Your task to perform on an android device: Search for Mexican restaurants on Maps Image 0: 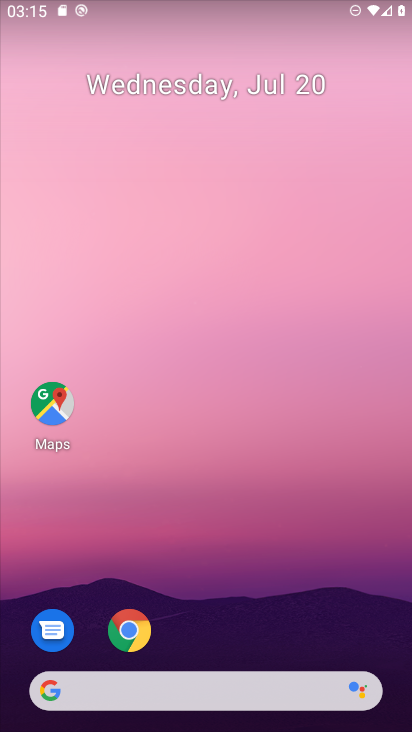
Step 0: drag from (348, 570) to (362, 92)
Your task to perform on an android device: Search for Mexican restaurants on Maps Image 1: 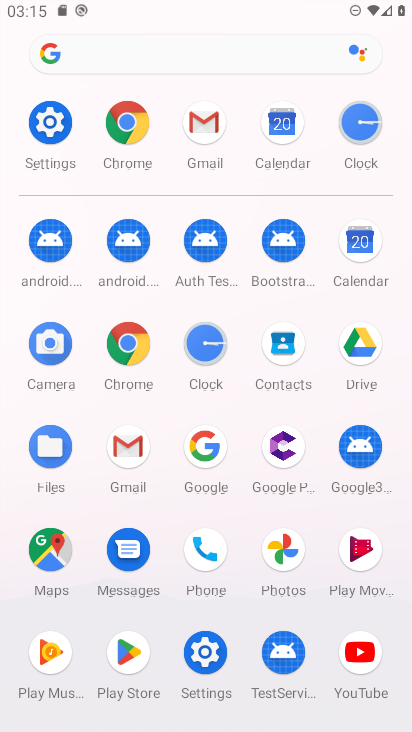
Step 1: click (58, 545)
Your task to perform on an android device: Search for Mexican restaurants on Maps Image 2: 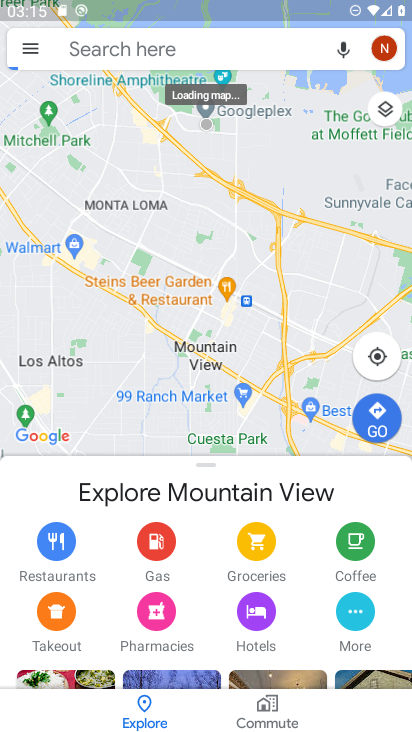
Step 2: click (171, 54)
Your task to perform on an android device: Search for Mexican restaurants on Maps Image 3: 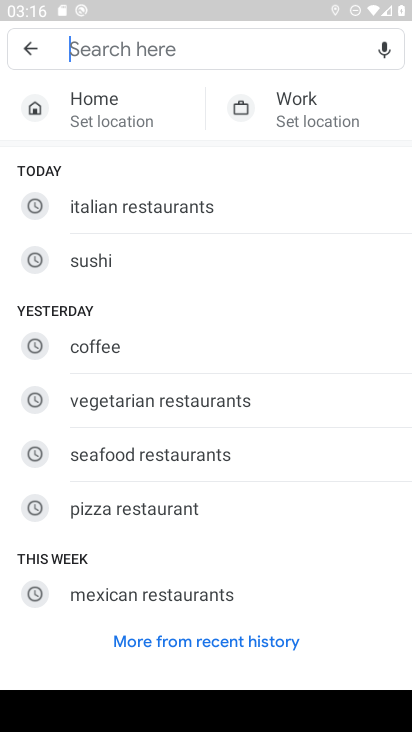
Step 3: type "mixcian restaurants"
Your task to perform on an android device: Search for Mexican restaurants on Maps Image 4: 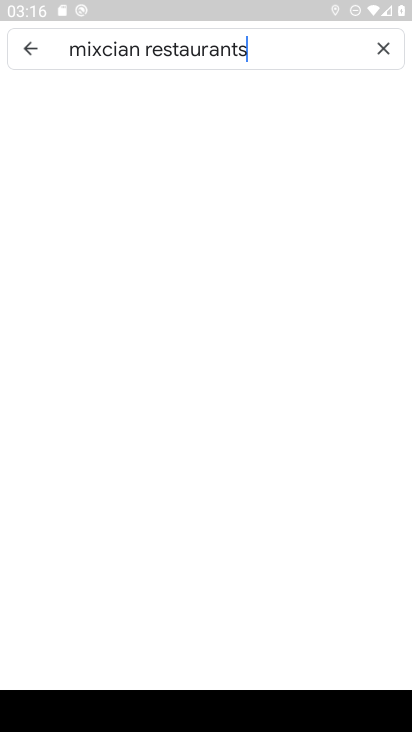
Step 4: task complete